Your task to perform on an android device: open a bookmark in the chrome app Image 0: 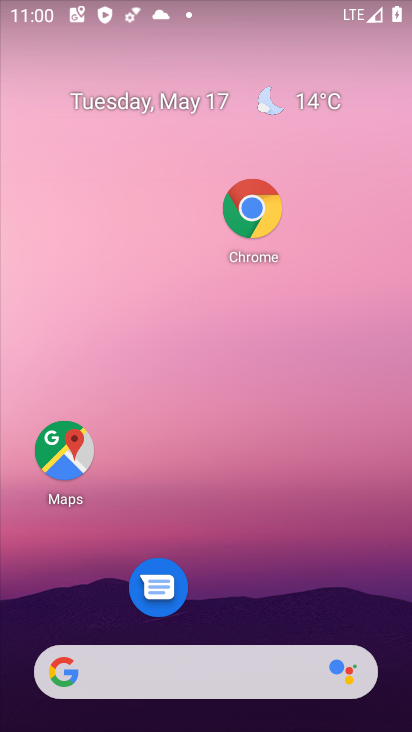
Step 0: click (263, 211)
Your task to perform on an android device: open a bookmark in the chrome app Image 1: 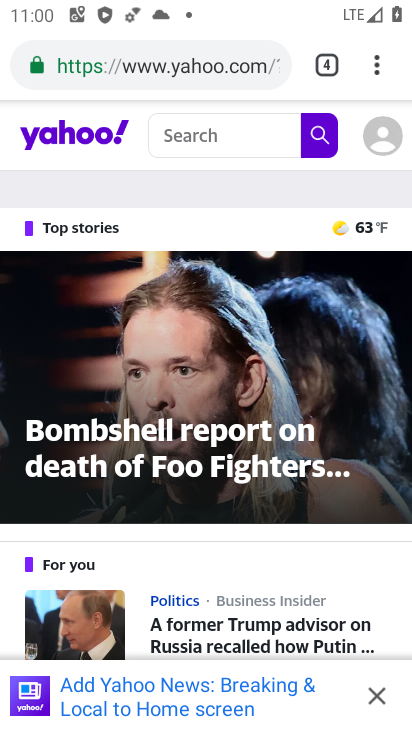
Step 1: click (389, 60)
Your task to perform on an android device: open a bookmark in the chrome app Image 2: 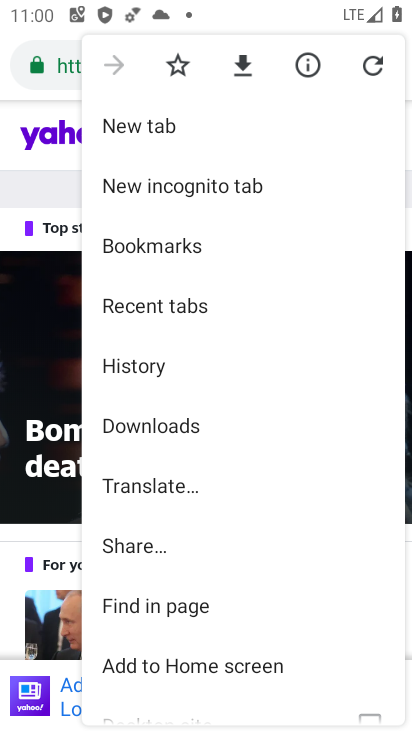
Step 2: click (209, 243)
Your task to perform on an android device: open a bookmark in the chrome app Image 3: 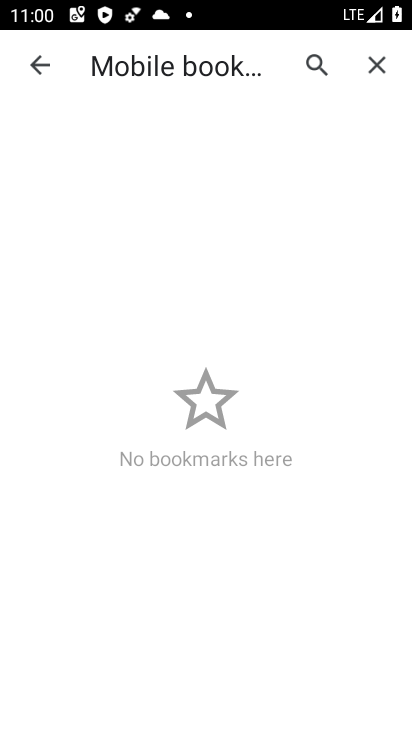
Step 3: task complete